Your task to perform on an android device: empty trash in the gmail app Image 0: 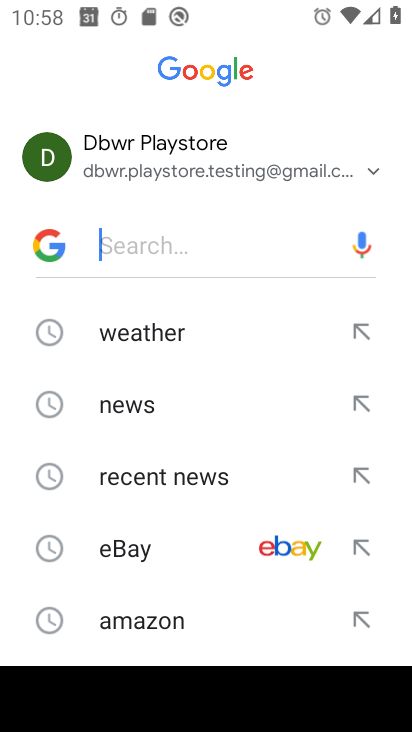
Step 0: press back button
Your task to perform on an android device: empty trash in the gmail app Image 1: 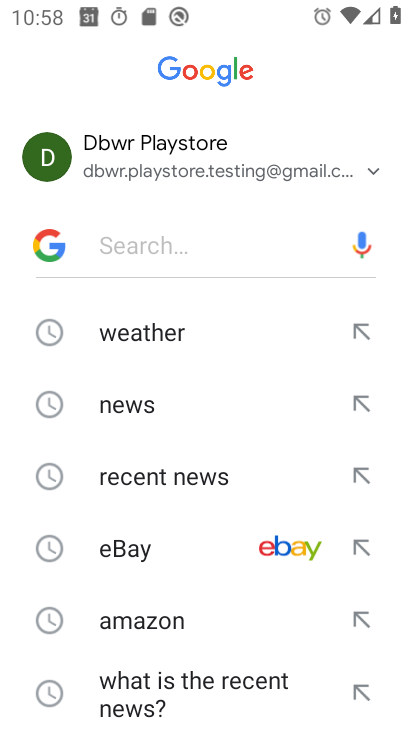
Step 1: press back button
Your task to perform on an android device: empty trash in the gmail app Image 2: 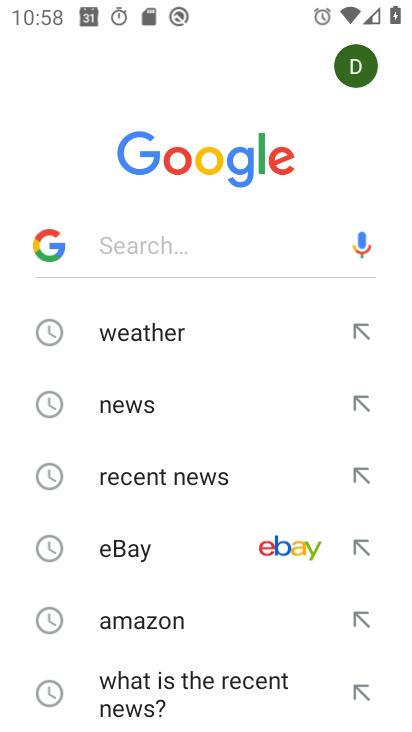
Step 2: press back button
Your task to perform on an android device: empty trash in the gmail app Image 3: 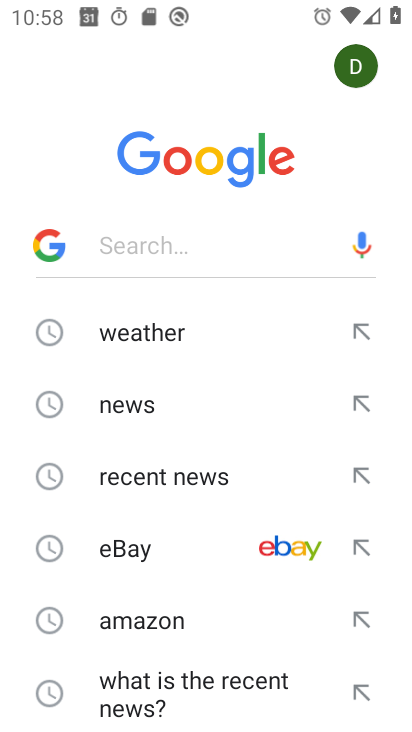
Step 3: press back button
Your task to perform on an android device: empty trash in the gmail app Image 4: 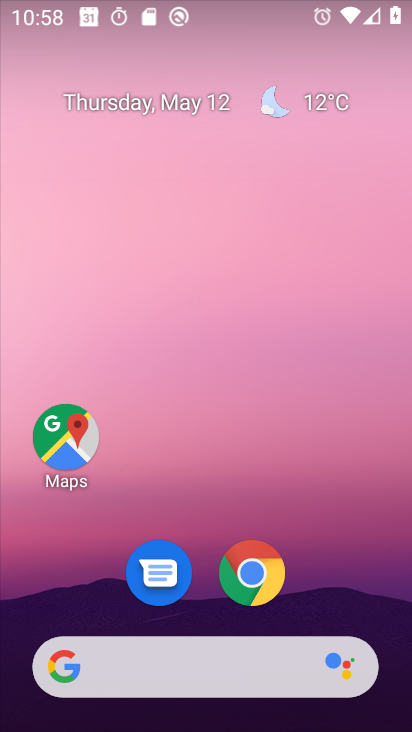
Step 4: drag from (398, 700) to (389, 392)
Your task to perform on an android device: empty trash in the gmail app Image 5: 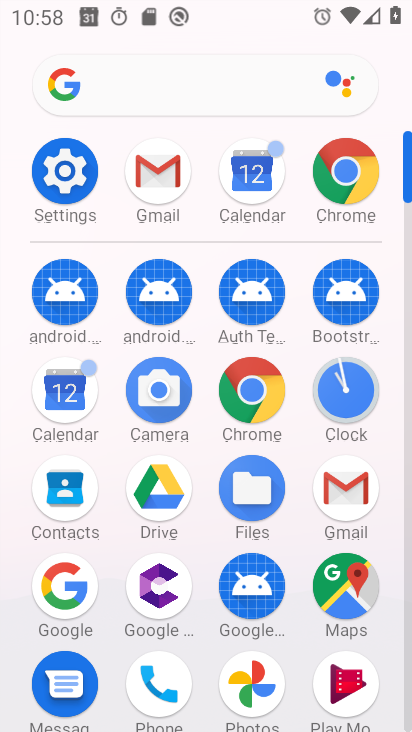
Step 5: click (338, 498)
Your task to perform on an android device: empty trash in the gmail app Image 6: 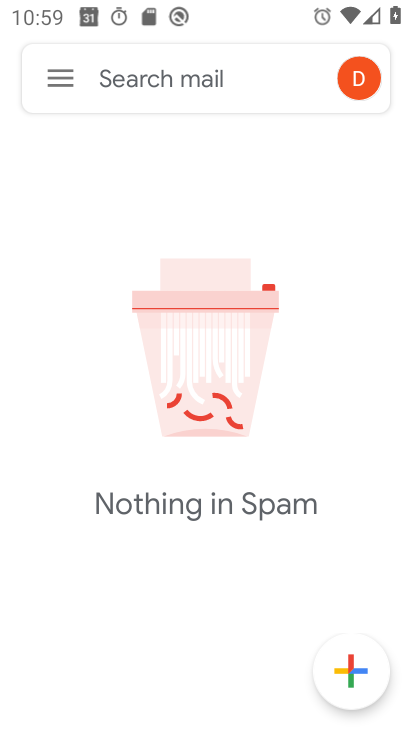
Step 6: task complete